Your task to perform on an android device: Go to location settings Image 0: 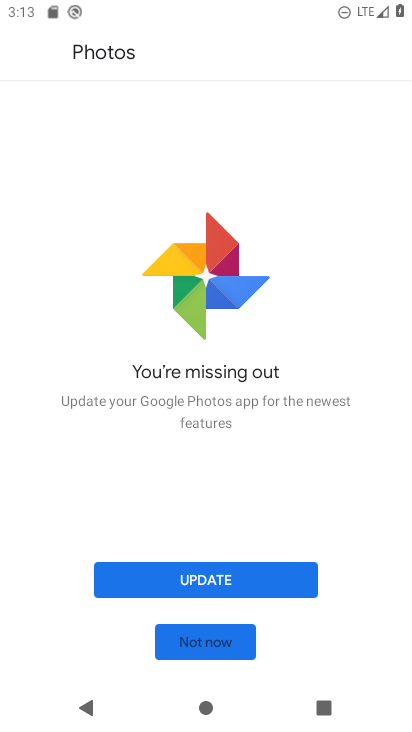
Step 0: press home button
Your task to perform on an android device: Go to location settings Image 1: 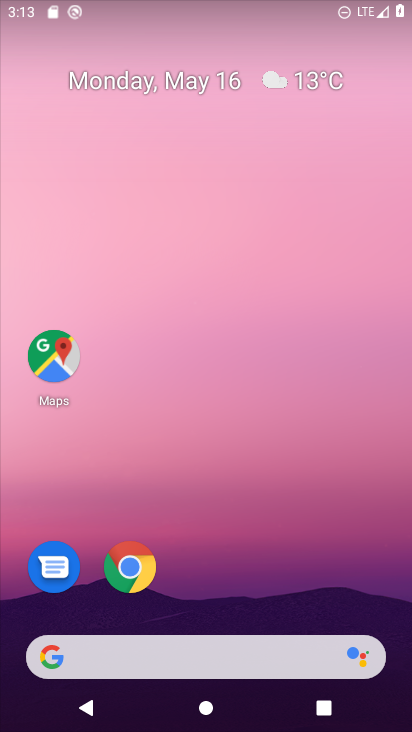
Step 1: drag from (247, 609) to (250, 244)
Your task to perform on an android device: Go to location settings Image 2: 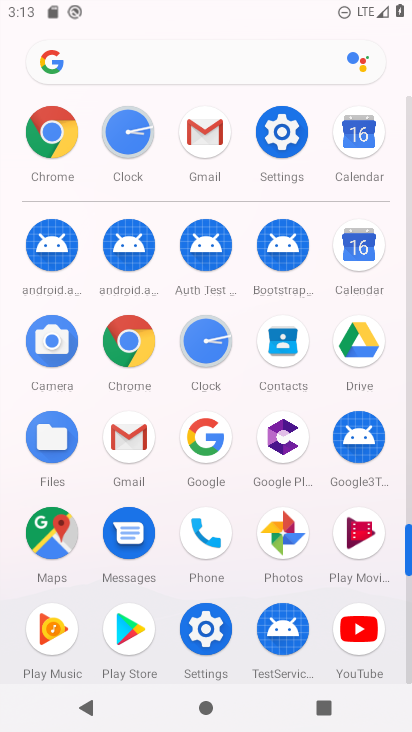
Step 2: drag from (239, 605) to (213, 329)
Your task to perform on an android device: Go to location settings Image 3: 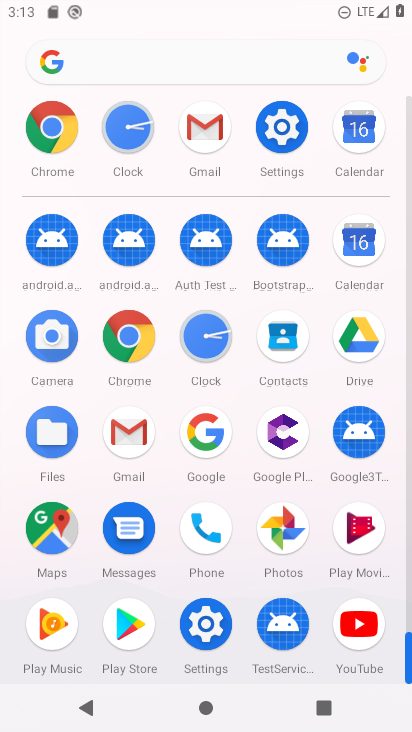
Step 3: click (210, 626)
Your task to perform on an android device: Go to location settings Image 4: 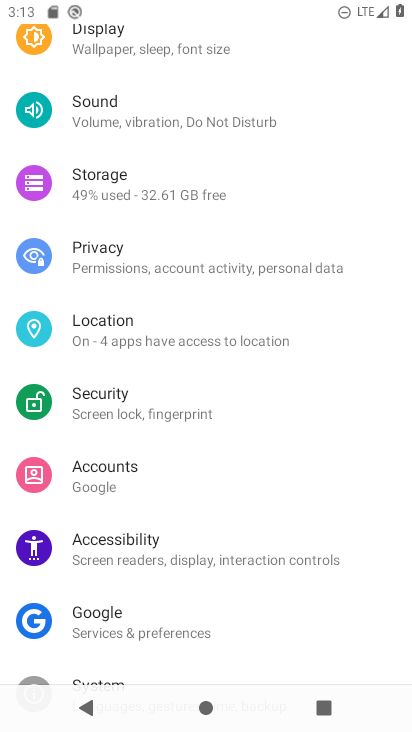
Step 4: click (133, 324)
Your task to perform on an android device: Go to location settings Image 5: 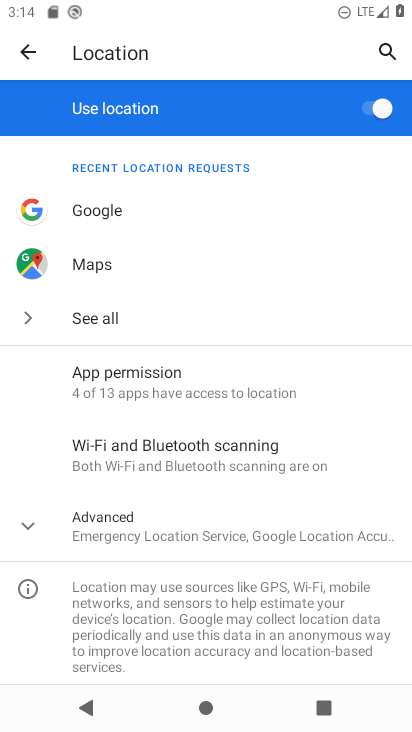
Step 5: task complete